Your task to perform on an android device: change text size in settings app Image 0: 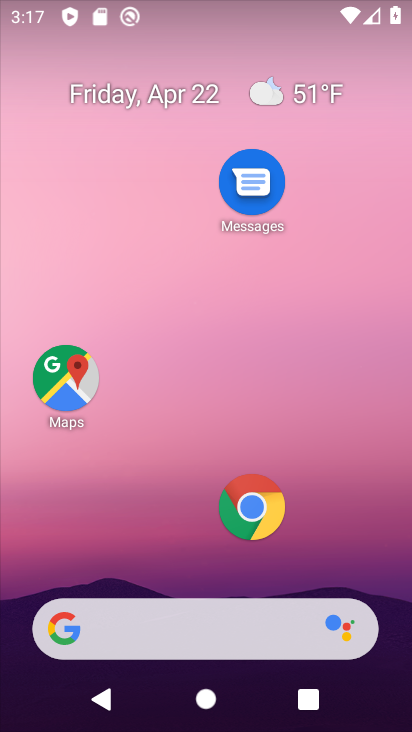
Step 0: drag from (159, 617) to (263, 163)
Your task to perform on an android device: change text size in settings app Image 1: 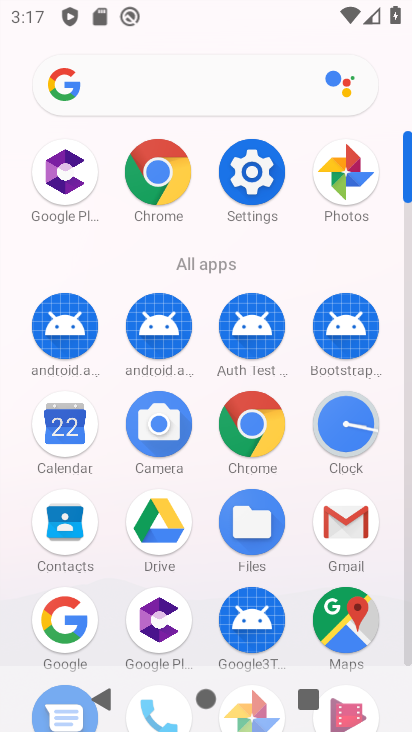
Step 1: click (259, 186)
Your task to perform on an android device: change text size in settings app Image 2: 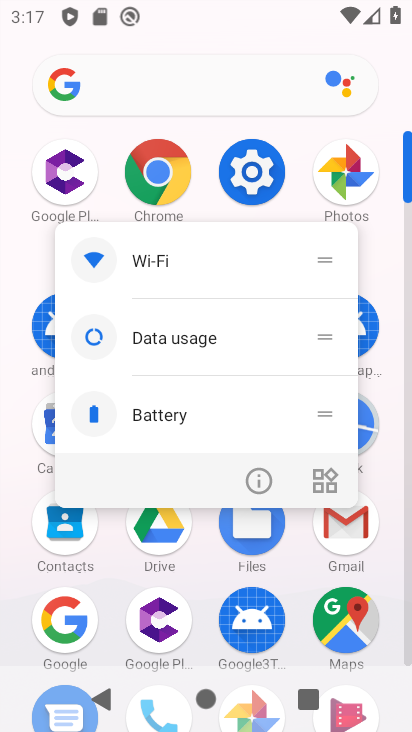
Step 2: click (248, 177)
Your task to perform on an android device: change text size in settings app Image 3: 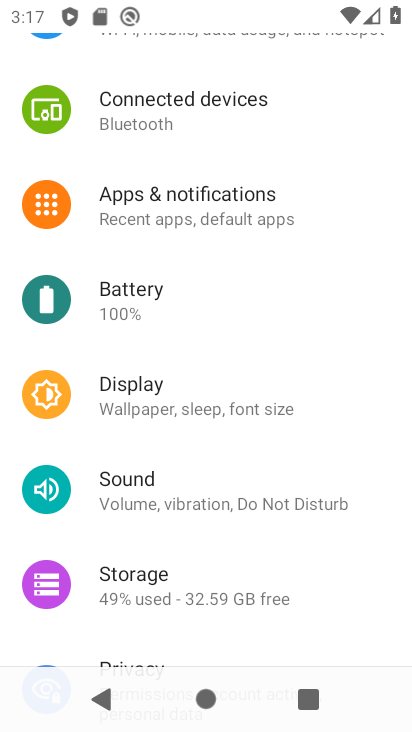
Step 3: click (236, 402)
Your task to perform on an android device: change text size in settings app Image 4: 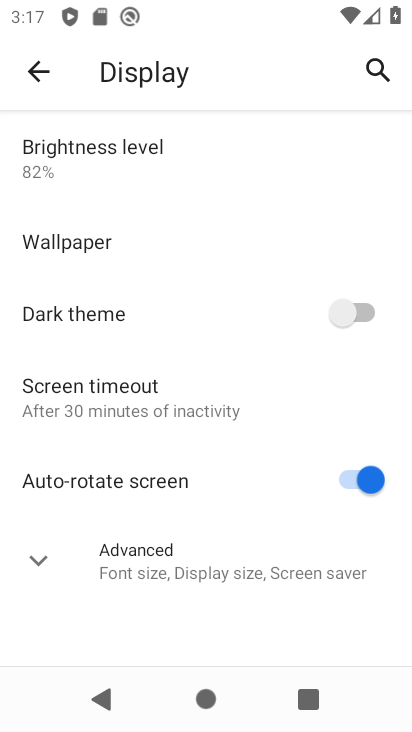
Step 4: click (41, 66)
Your task to perform on an android device: change text size in settings app Image 5: 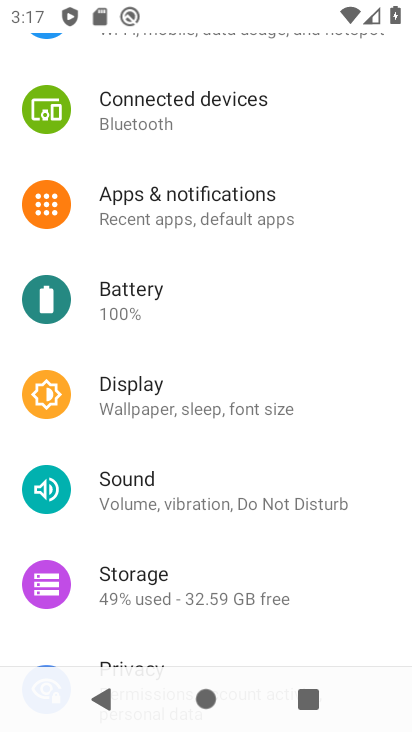
Step 5: click (226, 414)
Your task to perform on an android device: change text size in settings app Image 6: 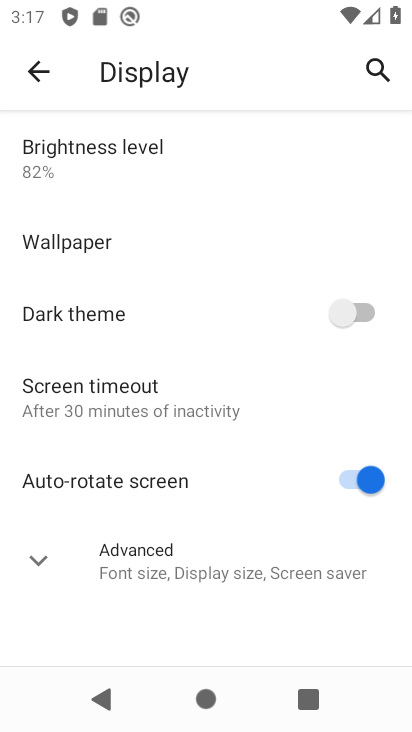
Step 6: click (139, 561)
Your task to perform on an android device: change text size in settings app Image 7: 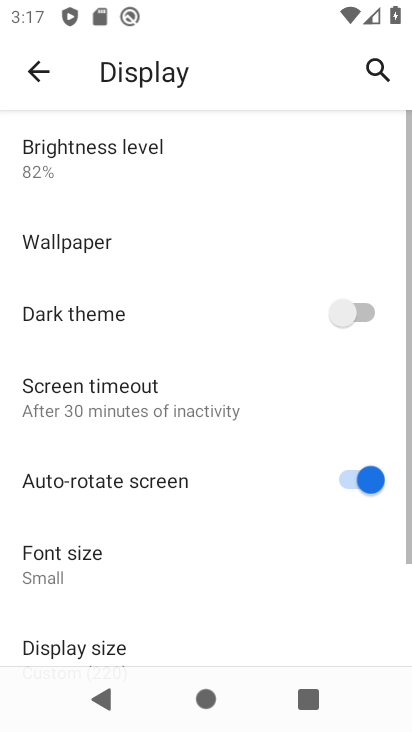
Step 7: drag from (183, 524) to (255, 231)
Your task to perform on an android device: change text size in settings app Image 8: 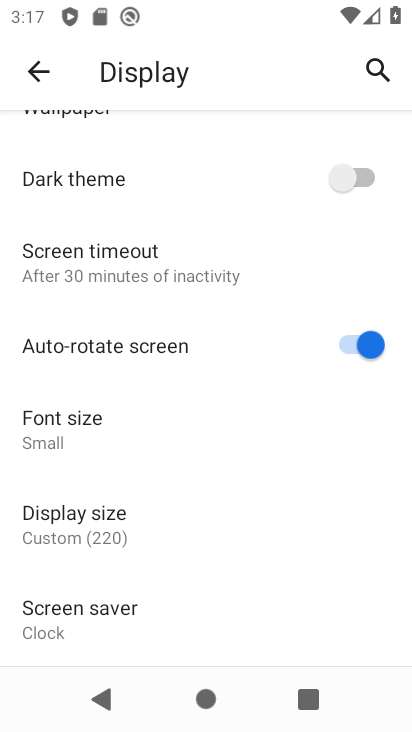
Step 8: click (58, 446)
Your task to perform on an android device: change text size in settings app Image 9: 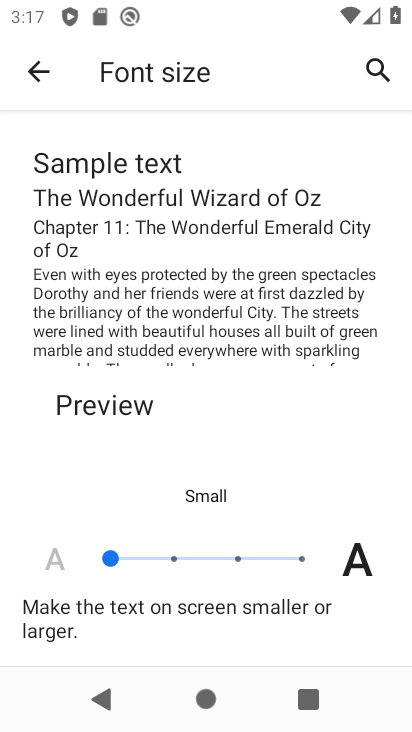
Step 9: click (172, 558)
Your task to perform on an android device: change text size in settings app Image 10: 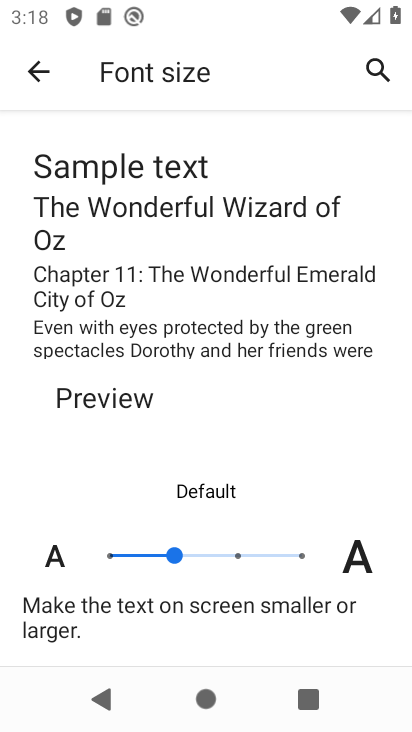
Step 10: task complete